Your task to perform on an android device: Open CNN.com Image 0: 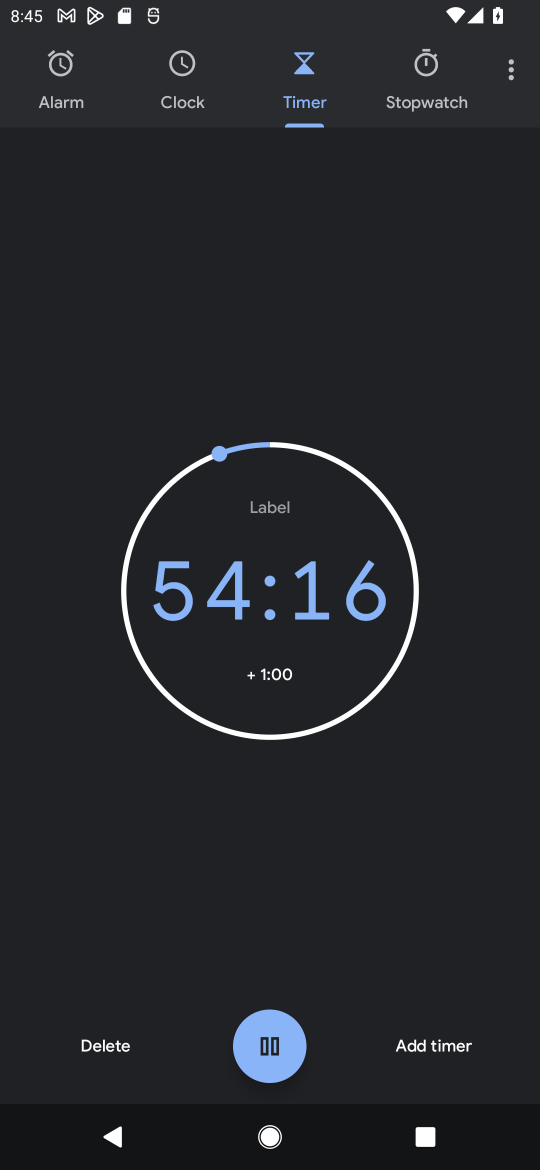
Step 0: press back button
Your task to perform on an android device: Open CNN.com Image 1: 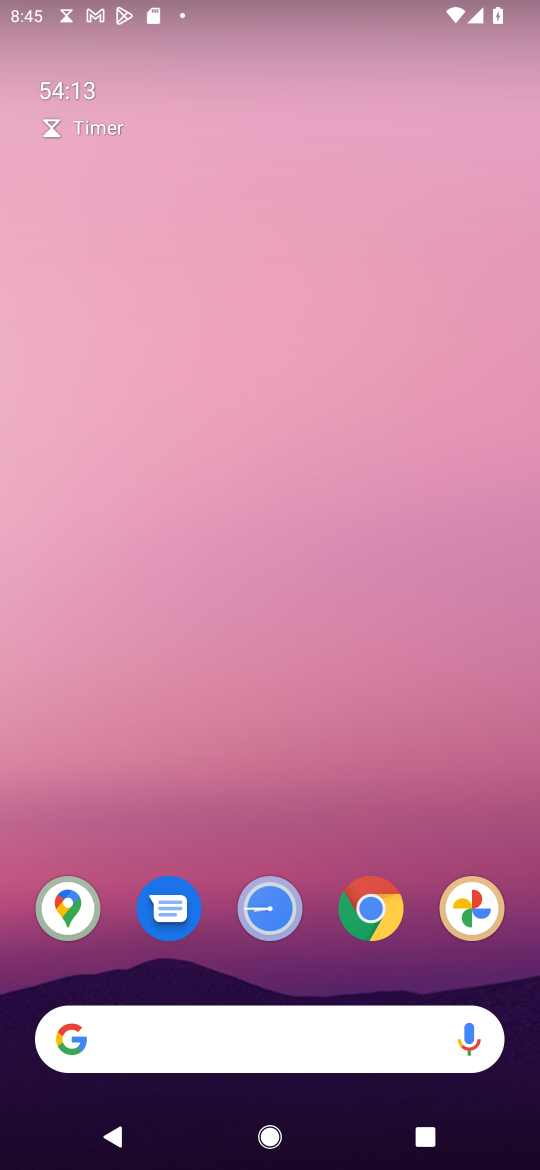
Step 1: click (361, 883)
Your task to perform on an android device: Open CNN.com Image 2: 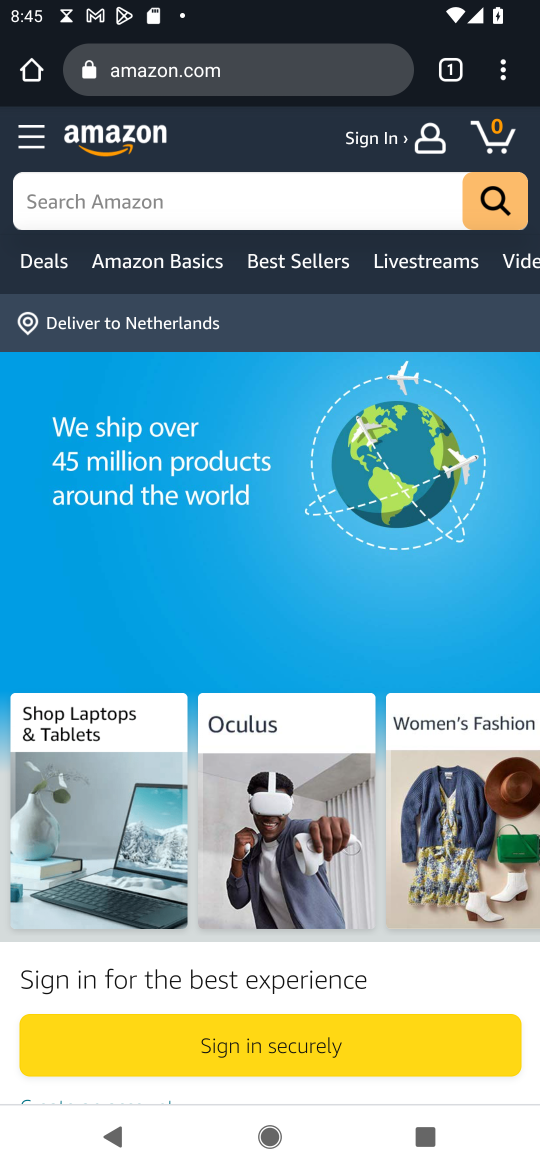
Step 2: click (235, 88)
Your task to perform on an android device: Open CNN.com Image 3: 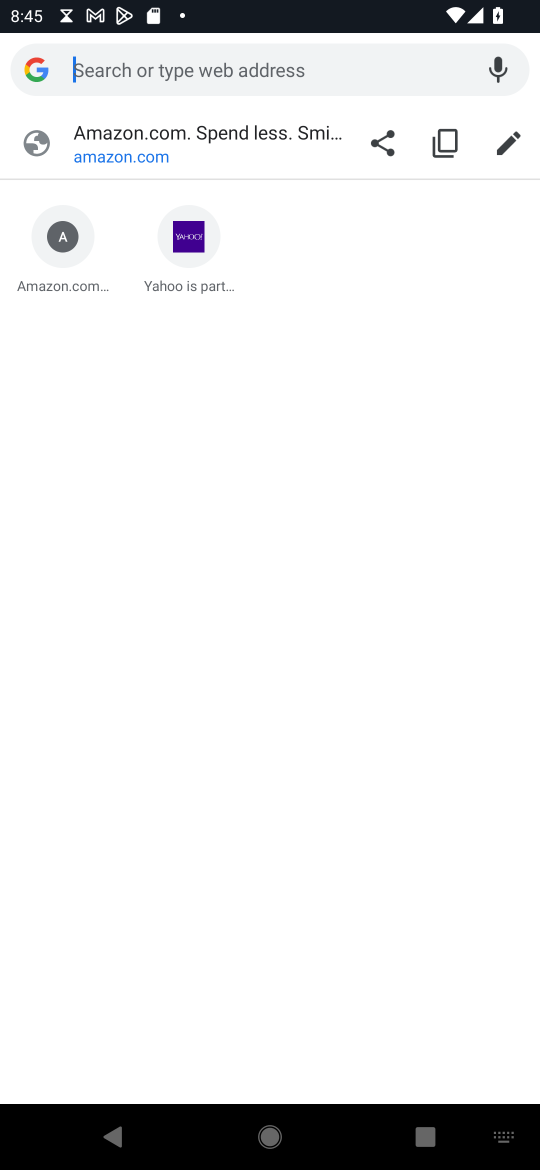
Step 3: type "cnn.com"
Your task to perform on an android device: Open CNN.com Image 4: 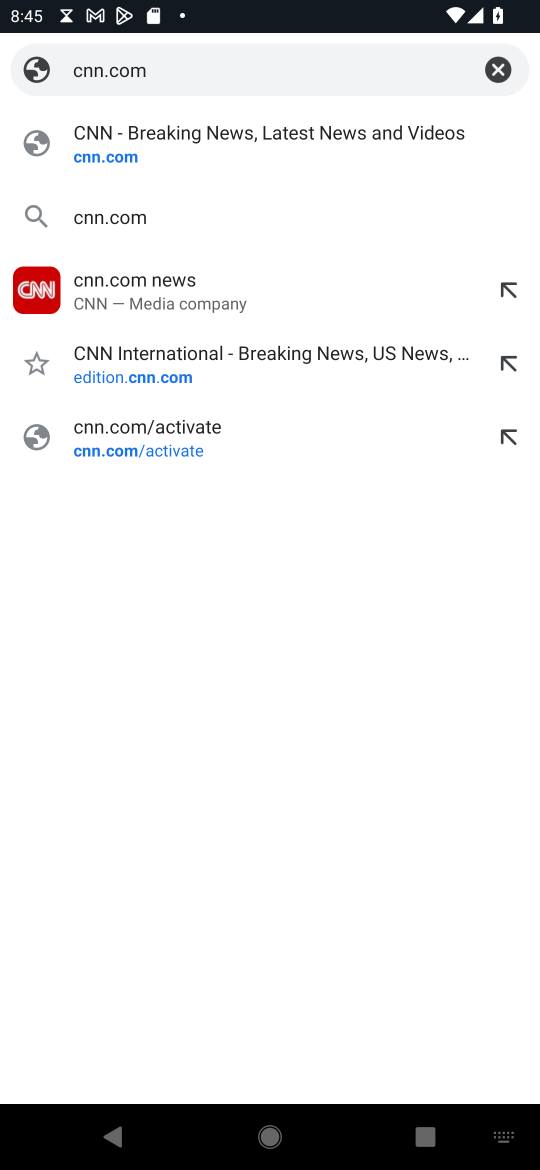
Step 4: click (150, 285)
Your task to perform on an android device: Open CNN.com Image 5: 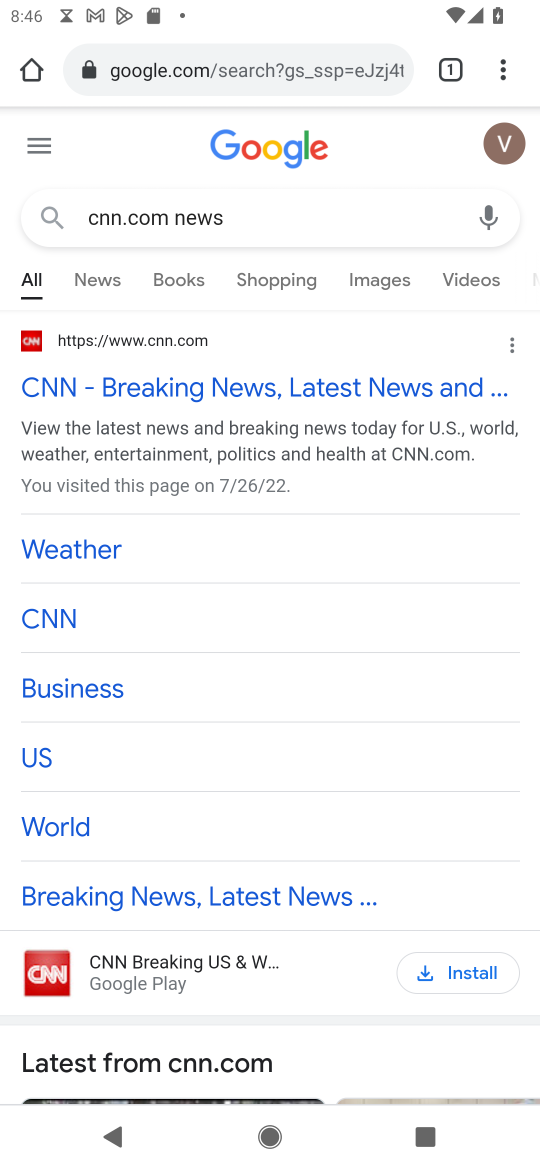
Step 5: task complete